Your task to perform on an android device: create a new album in the google photos Image 0: 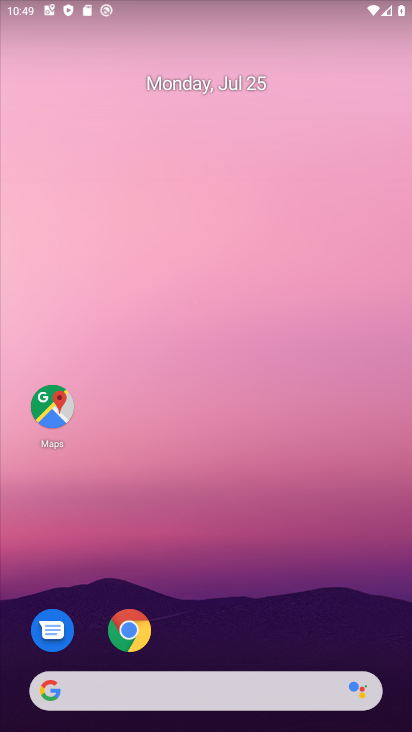
Step 0: drag from (355, 605) to (336, 107)
Your task to perform on an android device: create a new album in the google photos Image 1: 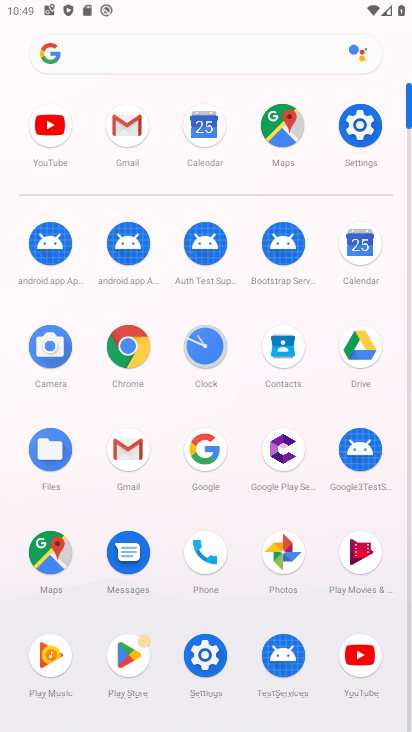
Step 1: click (280, 547)
Your task to perform on an android device: create a new album in the google photos Image 2: 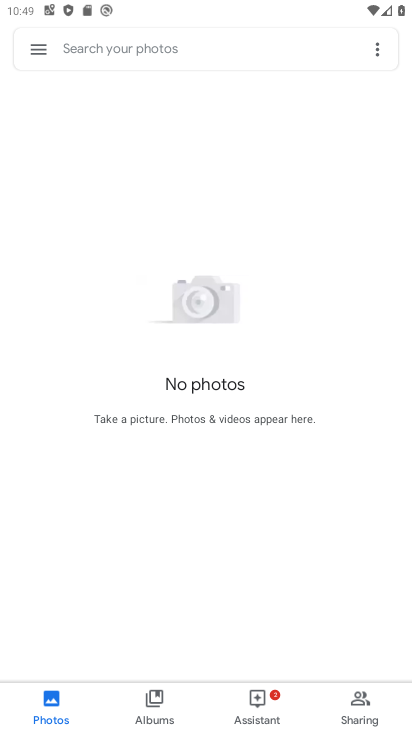
Step 2: click (376, 53)
Your task to perform on an android device: create a new album in the google photos Image 3: 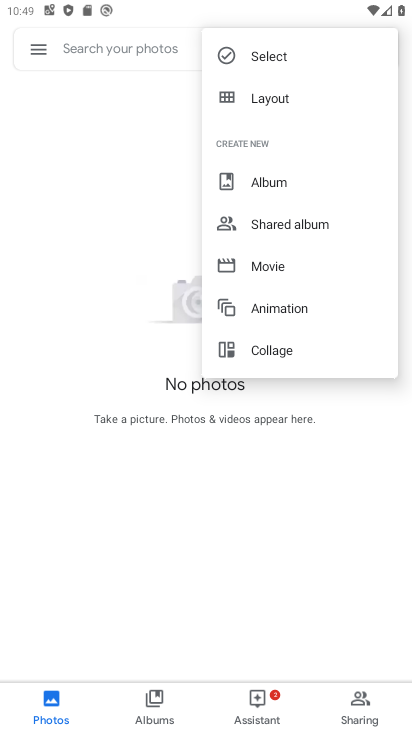
Step 3: click (273, 180)
Your task to perform on an android device: create a new album in the google photos Image 4: 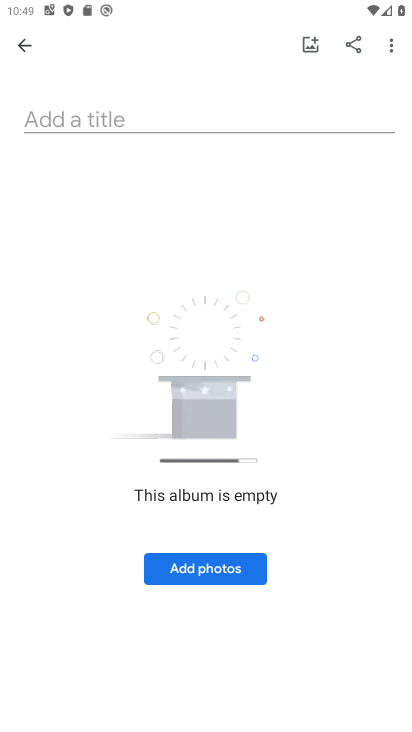
Step 4: click (223, 114)
Your task to perform on an android device: create a new album in the google photos Image 5: 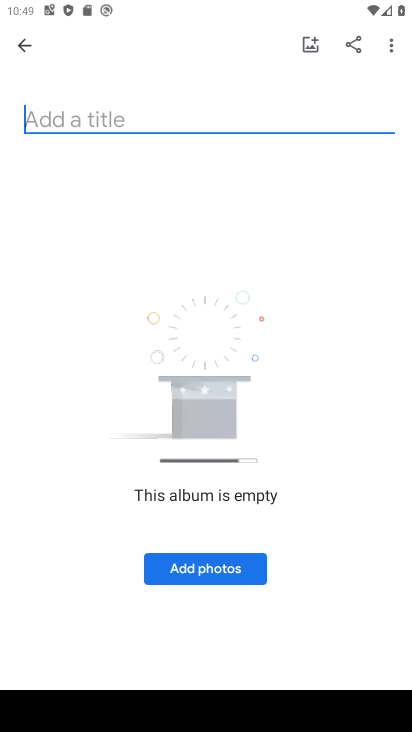
Step 5: type "fav"
Your task to perform on an android device: create a new album in the google photos Image 6: 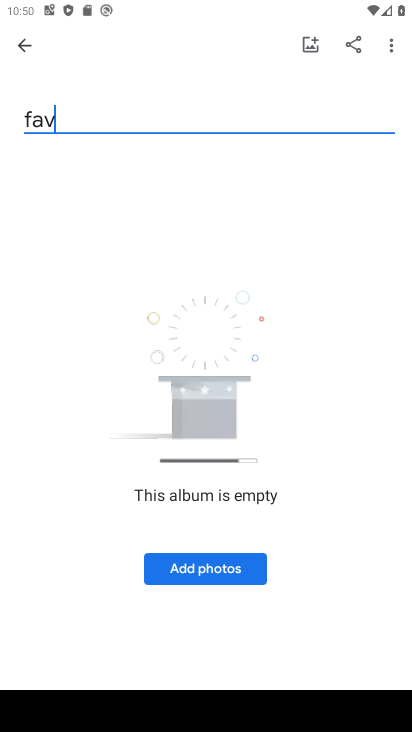
Step 6: click (233, 570)
Your task to perform on an android device: create a new album in the google photos Image 7: 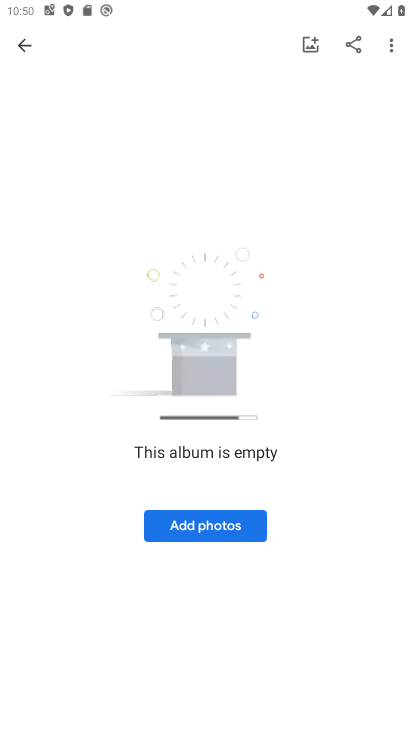
Step 7: click (225, 539)
Your task to perform on an android device: create a new album in the google photos Image 8: 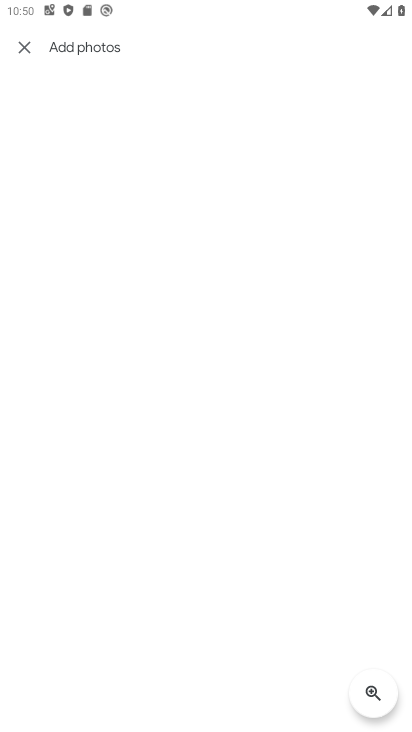
Step 8: task complete